Your task to perform on an android device: uninstall "Adobe Express: Graphic Design" Image 0: 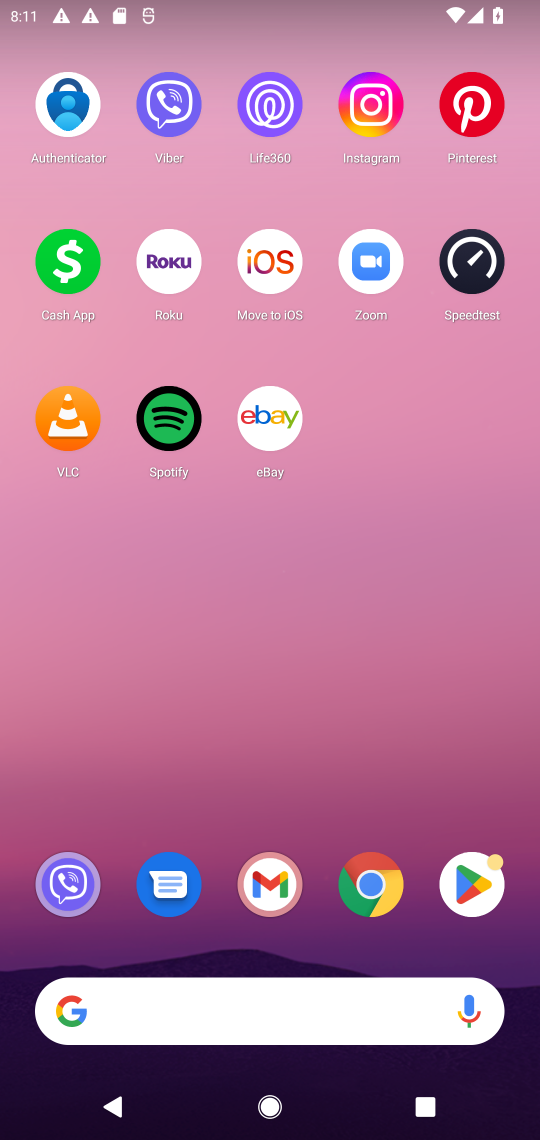
Step 0: press home button
Your task to perform on an android device: uninstall "Adobe Express: Graphic Design" Image 1: 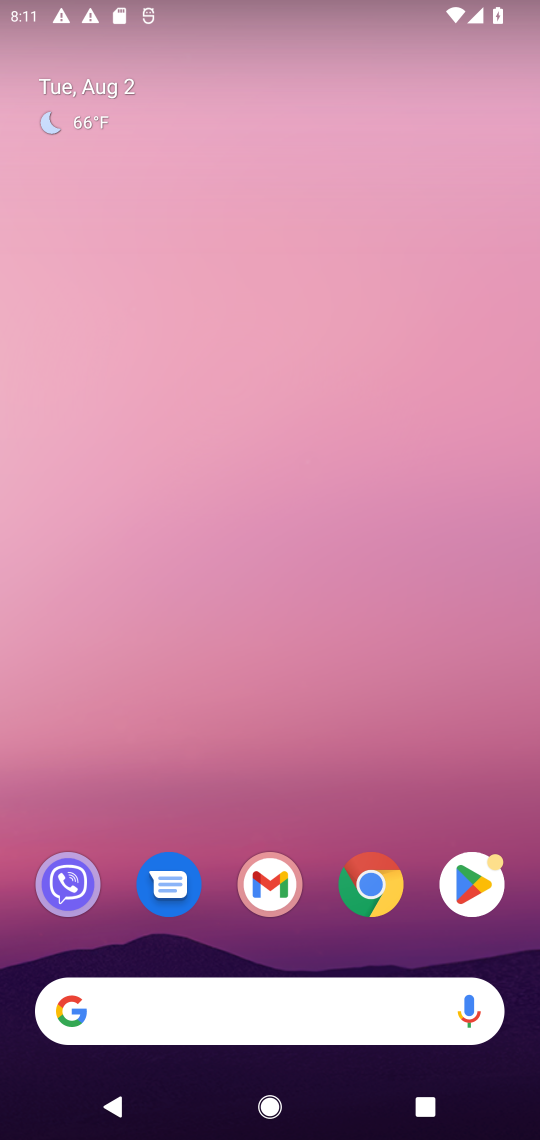
Step 1: click (491, 899)
Your task to perform on an android device: uninstall "Adobe Express: Graphic Design" Image 2: 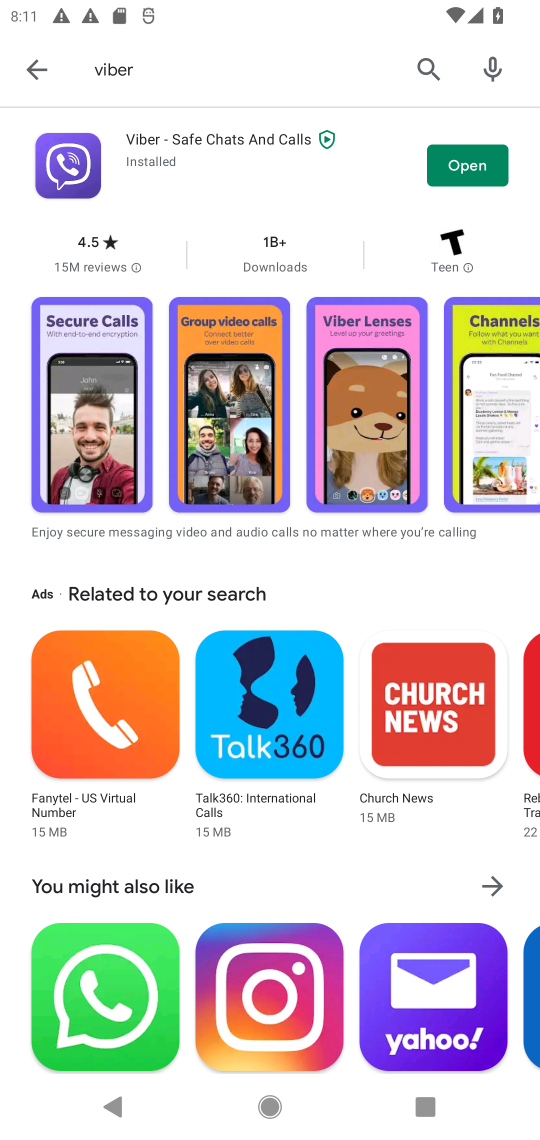
Step 2: click (423, 70)
Your task to perform on an android device: uninstall "Adobe Express: Graphic Design" Image 3: 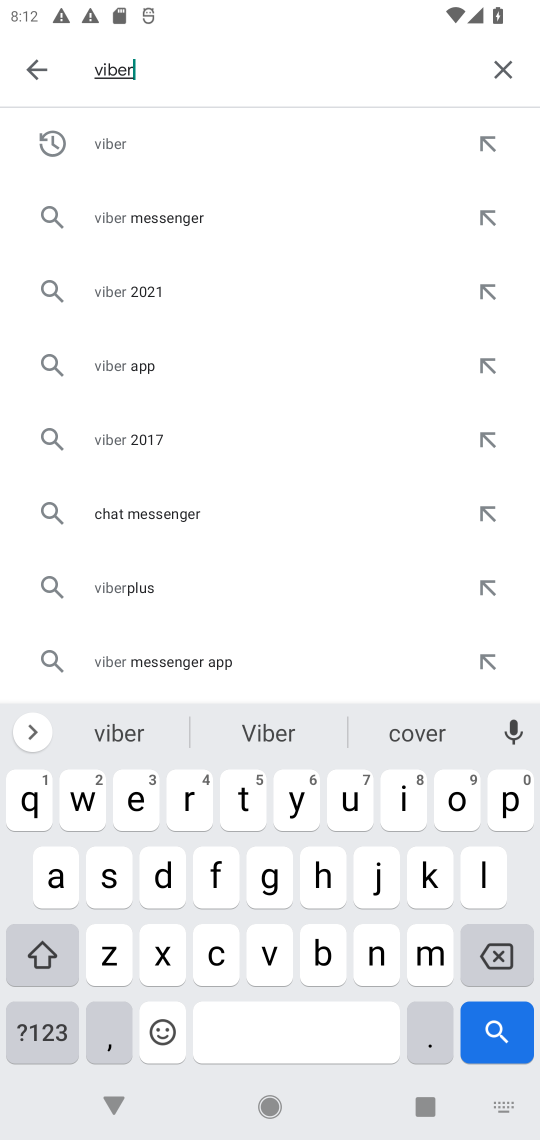
Step 3: click (502, 62)
Your task to perform on an android device: uninstall "Adobe Express: Graphic Design" Image 4: 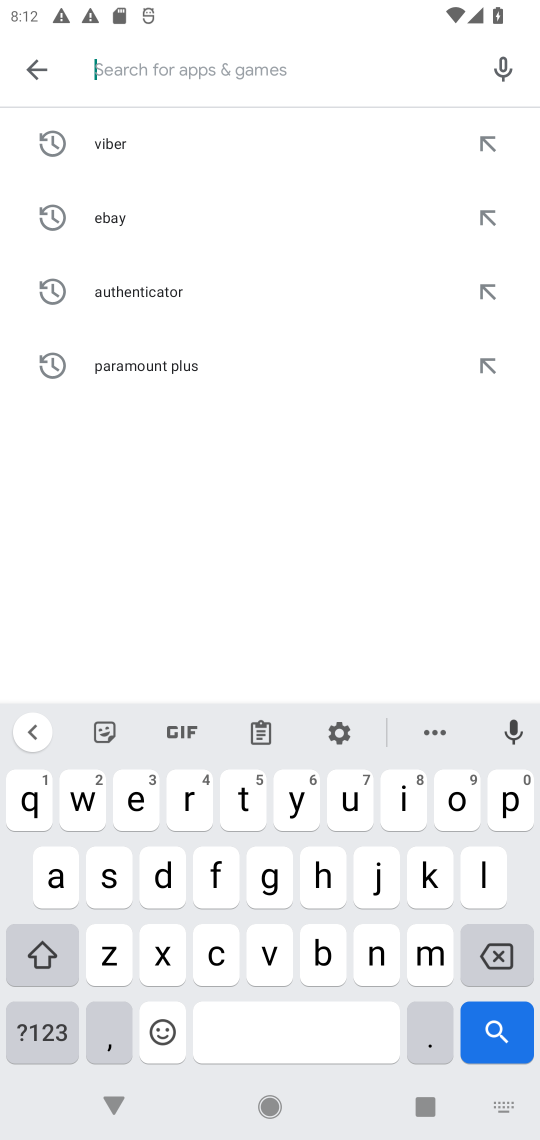
Step 4: click (53, 880)
Your task to perform on an android device: uninstall "Adobe Express: Graphic Design" Image 5: 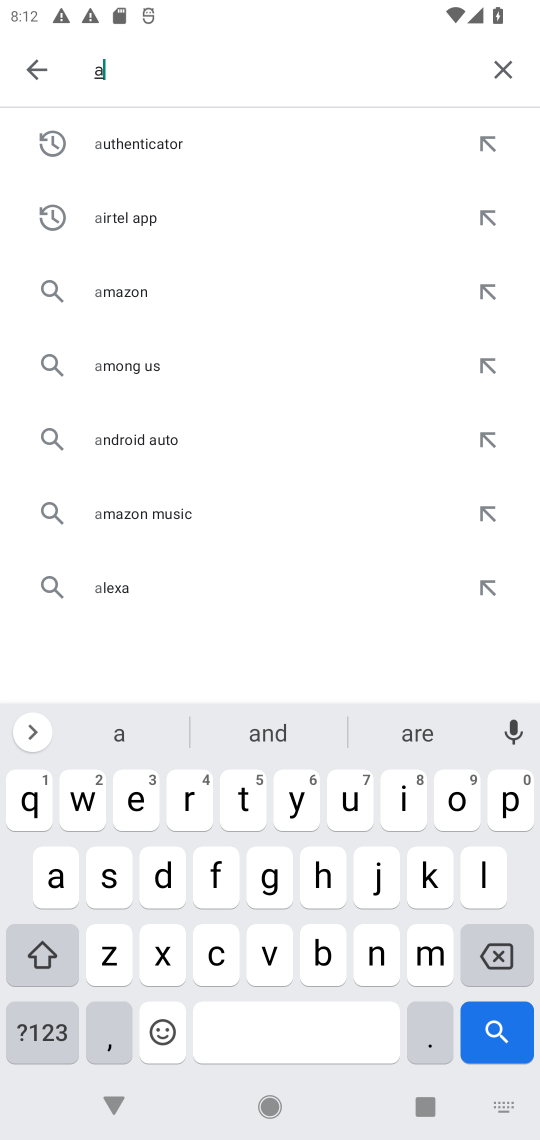
Step 5: click (160, 877)
Your task to perform on an android device: uninstall "Adobe Express: Graphic Design" Image 6: 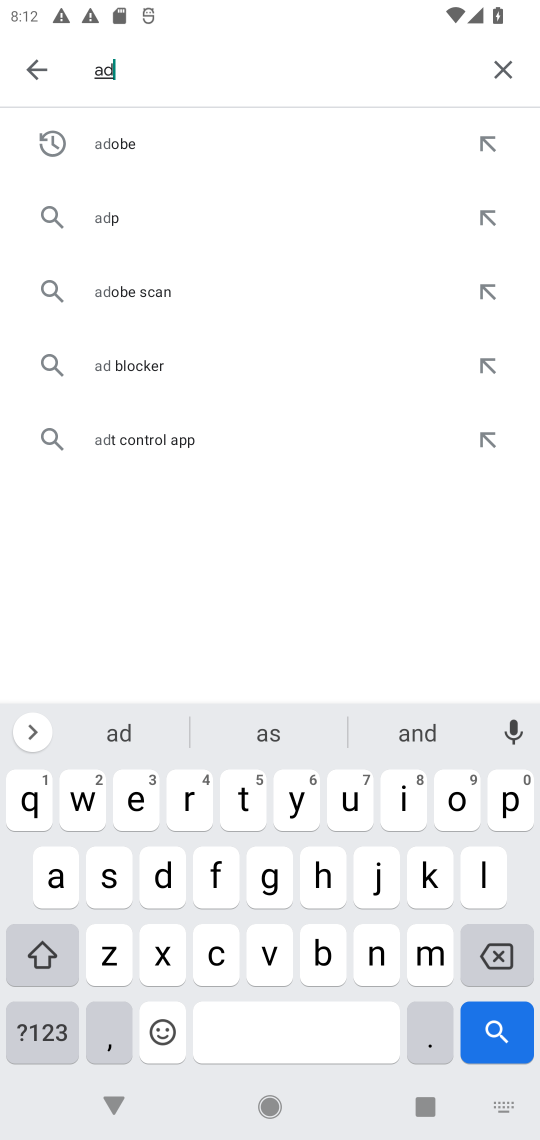
Step 6: click (461, 796)
Your task to perform on an android device: uninstall "Adobe Express: Graphic Design" Image 7: 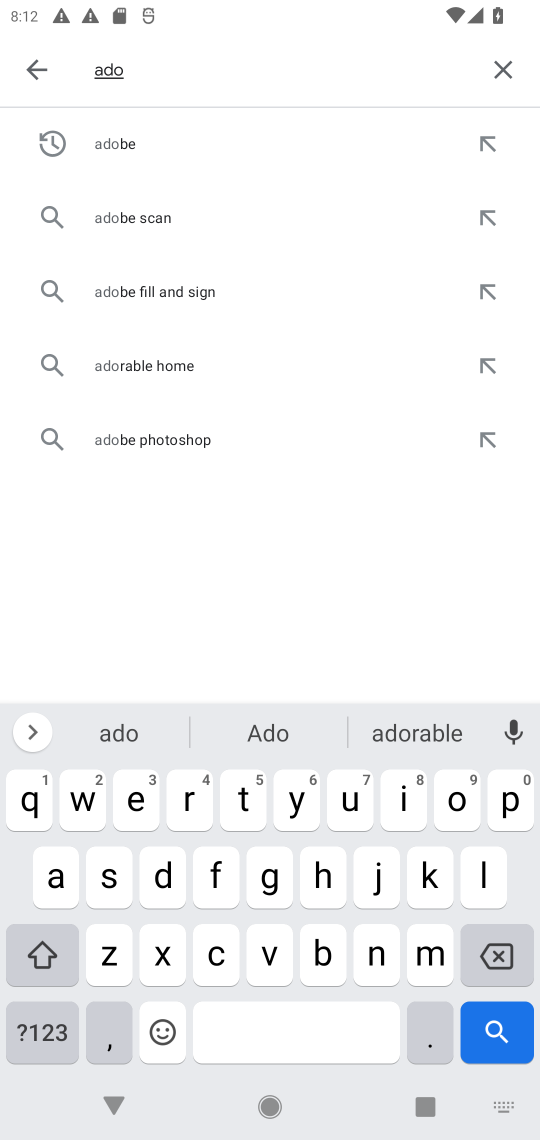
Step 7: click (181, 164)
Your task to perform on an android device: uninstall "Adobe Express: Graphic Design" Image 8: 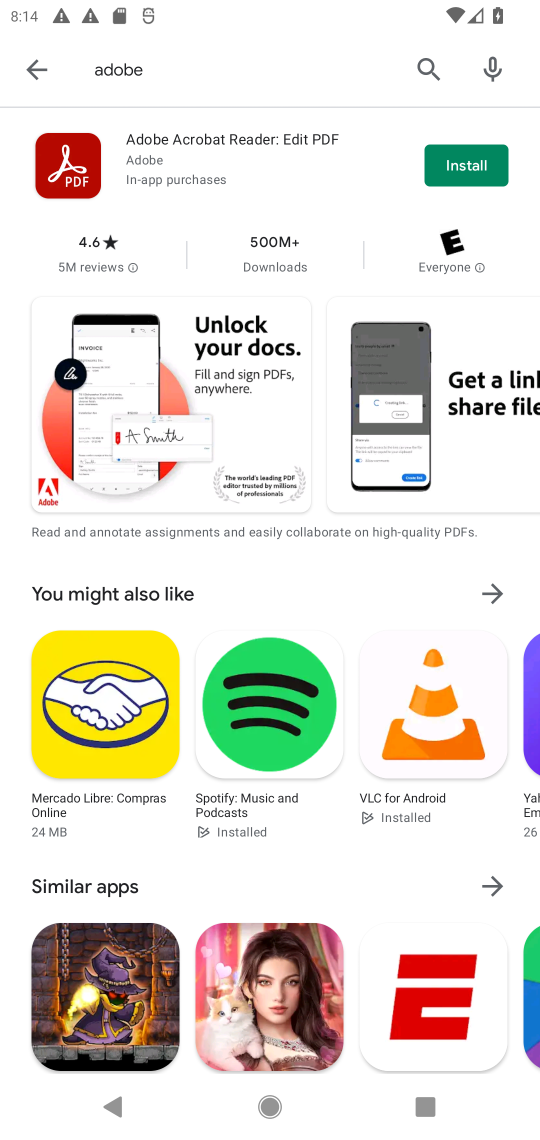
Step 8: task complete